Your task to perform on an android device: Go to Google Image 0: 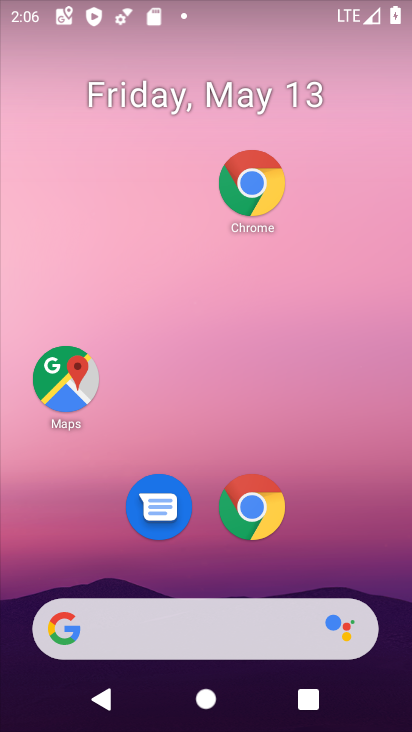
Step 0: drag from (237, 506) to (108, 124)
Your task to perform on an android device: Go to Google Image 1: 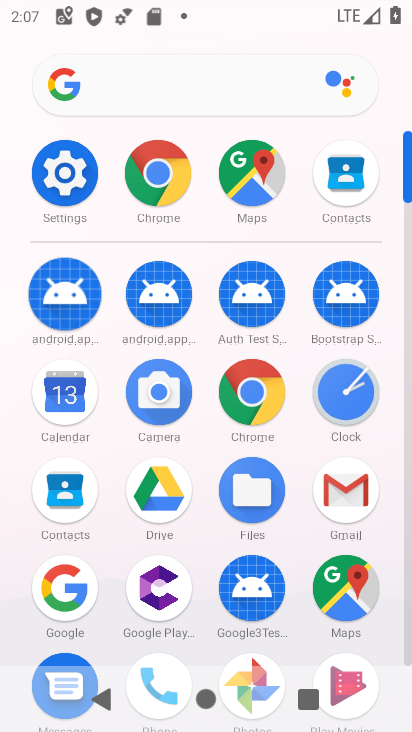
Step 1: click (56, 594)
Your task to perform on an android device: Go to Google Image 2: 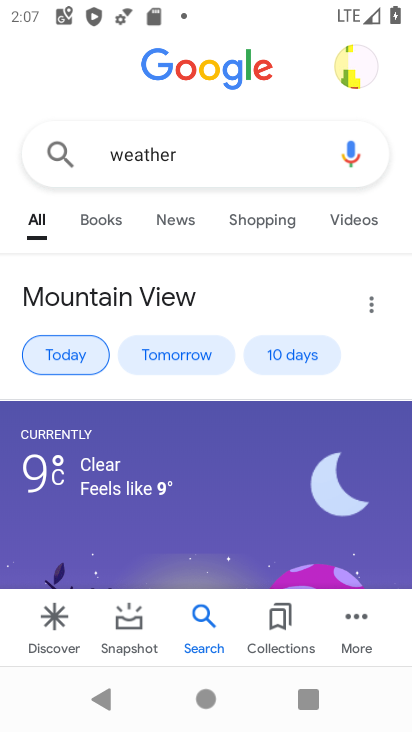
Step 2: click (69, 592)
Your task to perform on an android device: Go to Google Image 3: 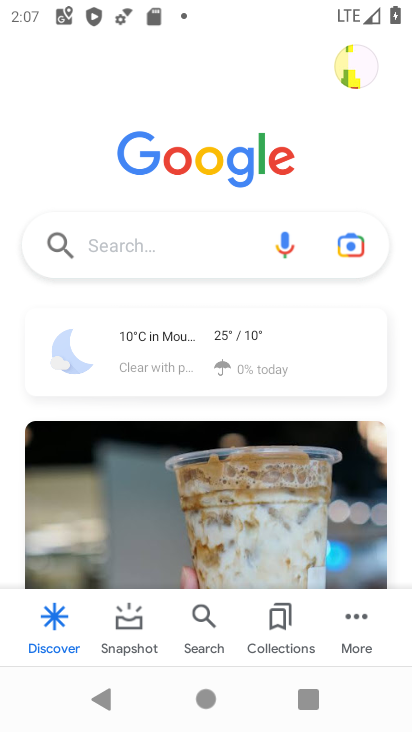
Step 3: task complete